Your task to perform on an android device: open a new tab in the chrome app Image 0: 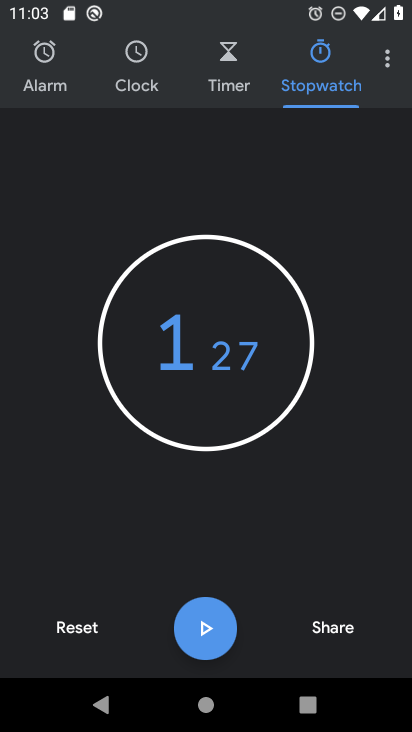
Step 0: press home button
Your task to perform on an android device: open a new tab in the chrome app Image 1: 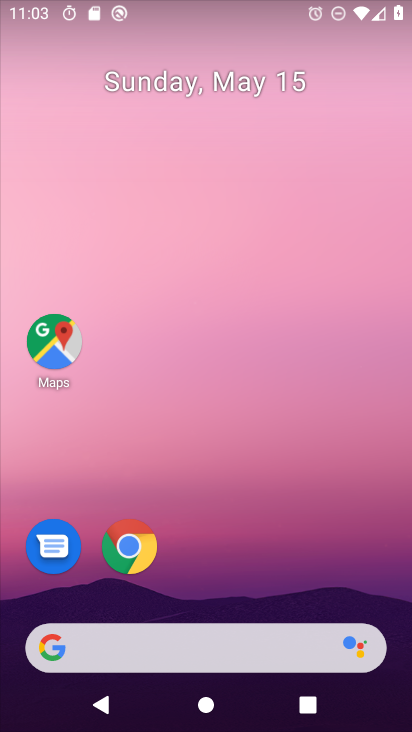
Step 1: click (55, 342)
Your task to perform on an android device: open a new tab in the chrome app Image 2: 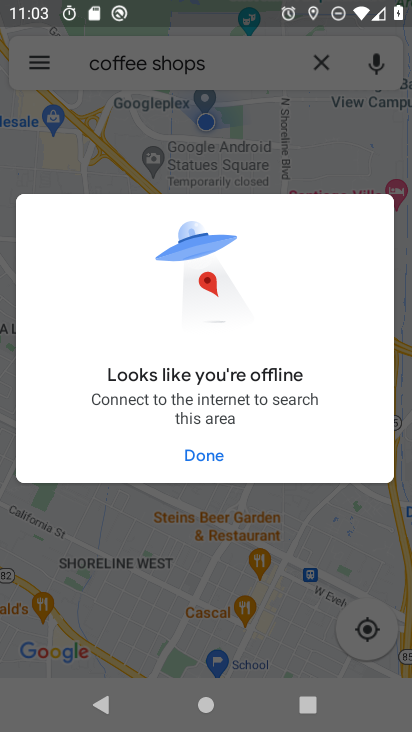
Step 2: press home button
Your task to perform on an android device: open a new tab in the chrome app Image 3: 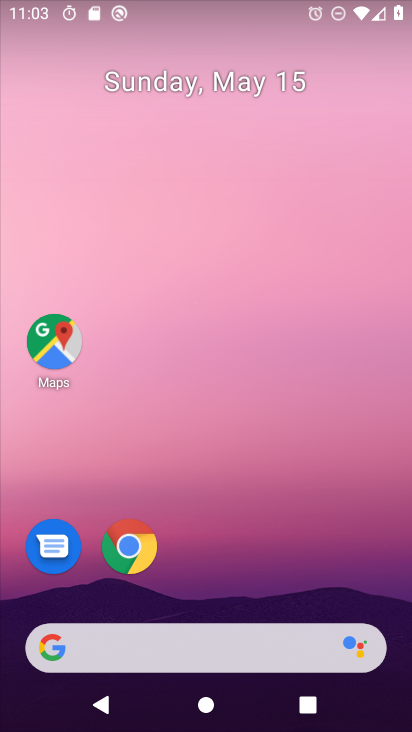
Step 3: click (135, 540)
Your task to perform on an android device: open a new tab in the chrome app Image 4: 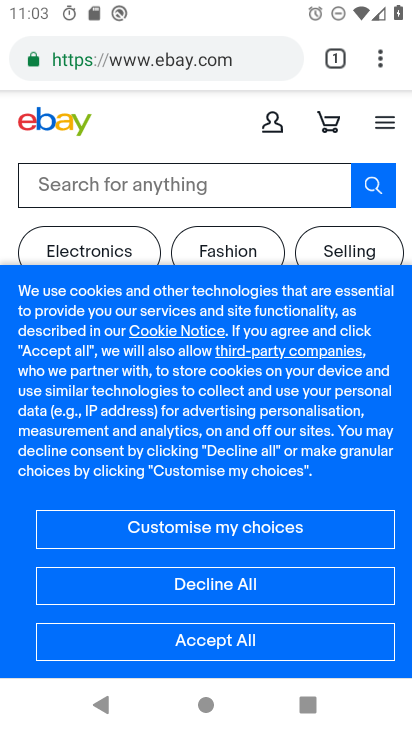
Step 4: task complete